Your task to perform on an android device: open a bookmark in the chrome app Image 0: 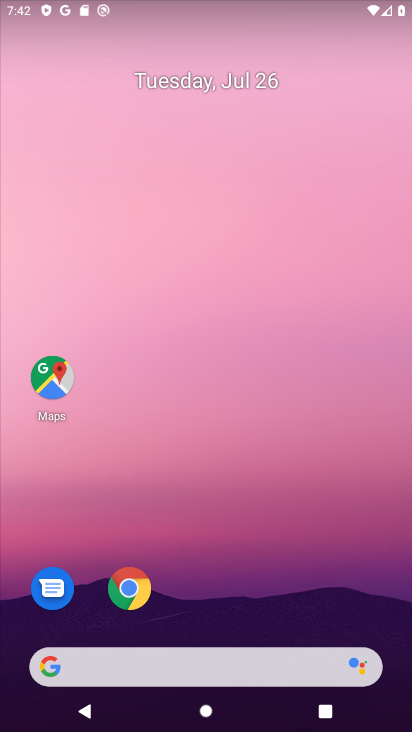
Step 0: drag from (194, 707) to (395, 287)
Your task to perform on an android device: open a bookmark in the chrome app Image 1: 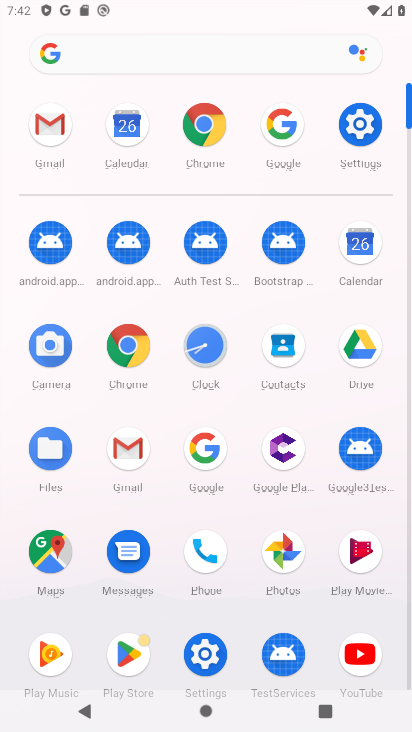
Step 1: click (205, 132)
Your task to perform on an android device: open a bookmark in the chrome app Image 2: 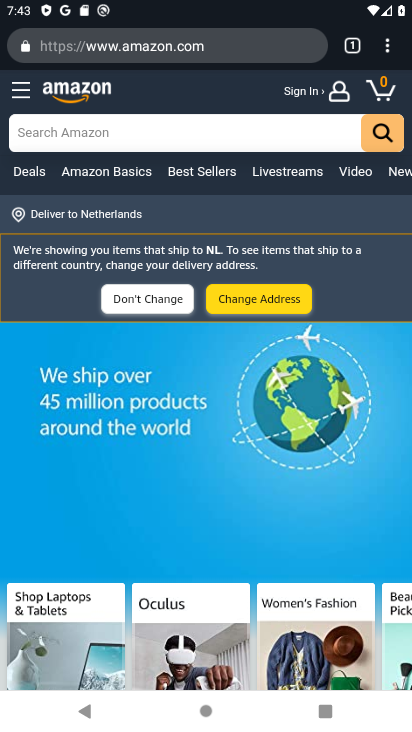
Step 2: click (387, 46)
Your task to perform on an android device: open a bookmark in the chrome app Image 3: 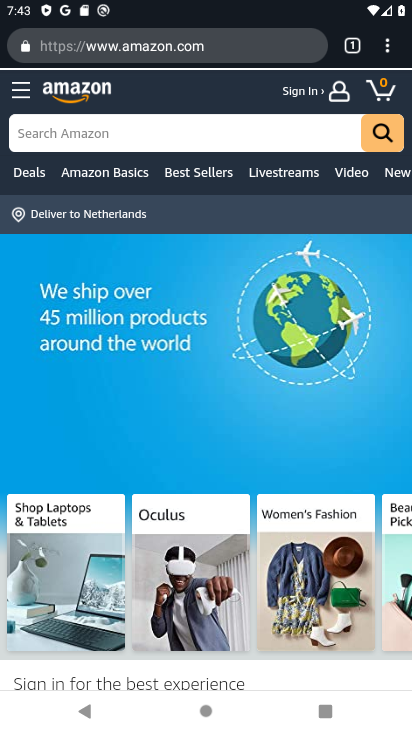
Step 3: click (389, 50)
Your task to perform on an android device: open a bookmark in the chrome app Image 4: 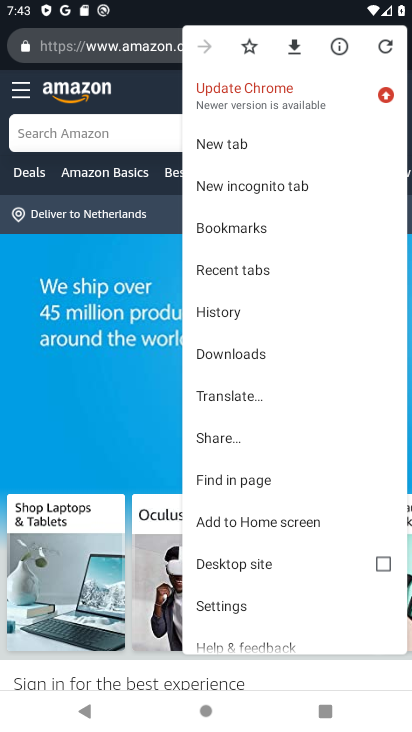
Step 4: click (213, 606)
Your task to perform on an android device: open a bookmark in the chrome app Image 5: 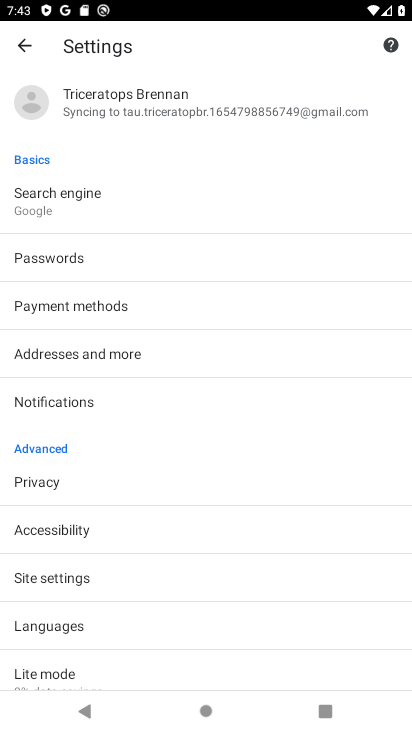
Step 5: click (23, 49)
Your task to perform on an android device: open a bookmark in the chrome app Image 6: 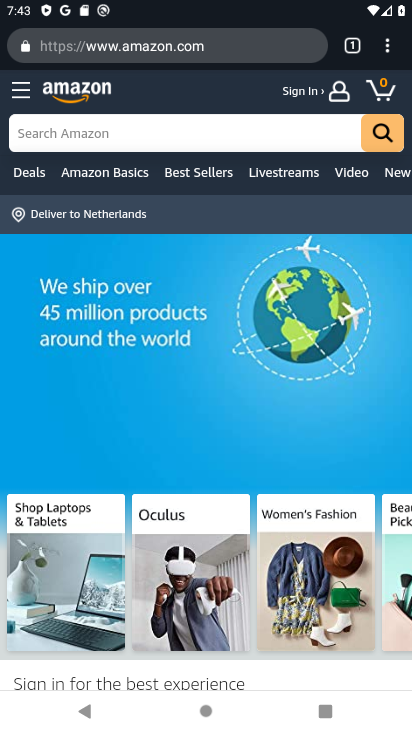
Step 6: click (395, 37)
Your task to perform on an android device: open a bookmark in the chrome app Image 7: 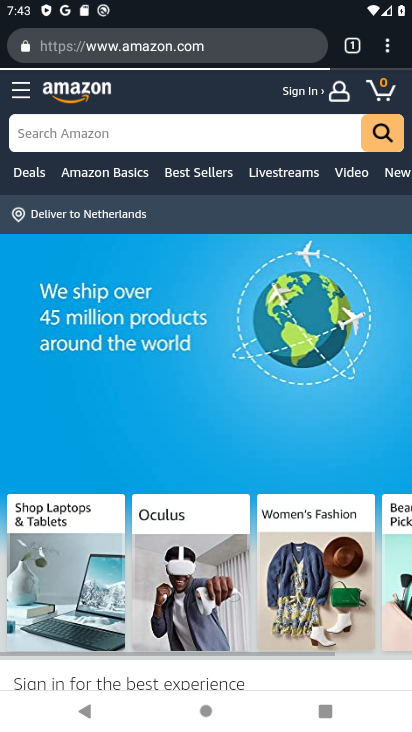
Step 7: click (389, 52)
Your task to perform on an android device: open a bookmark in the chrome app Image 8: 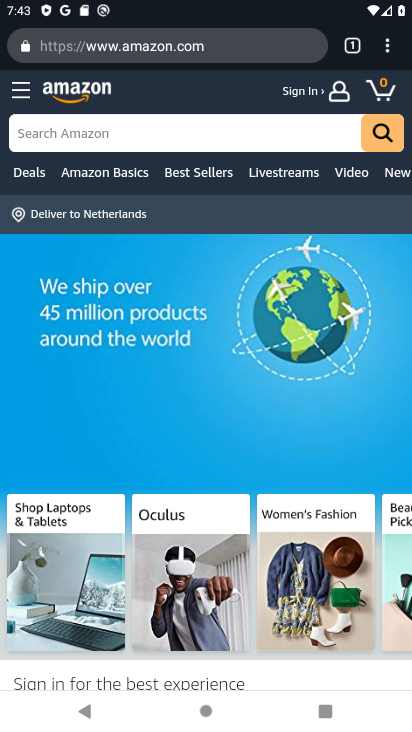
Step 8: click (389, 52)
Your task to perform on an android device: open a bookmark in the chrome app Image 9: 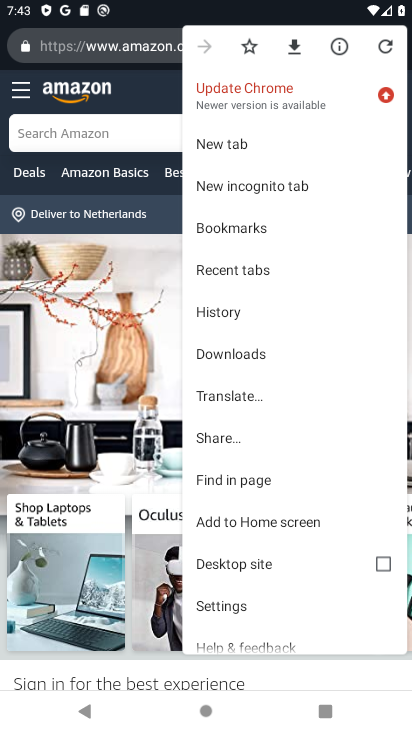
Step 9: click (235, 226)
Your task to perform on an android device: open a bookmark in the chrome app Image 10: 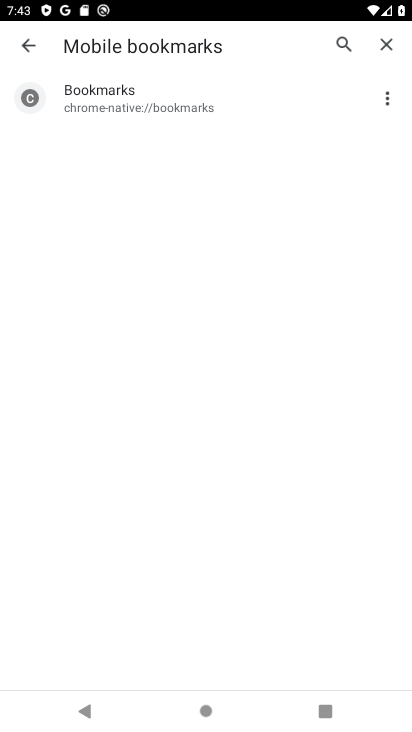
Step 10: click (212, 100)
Your task to perform on an android device: open a bookmark in the chrome app Image 11: 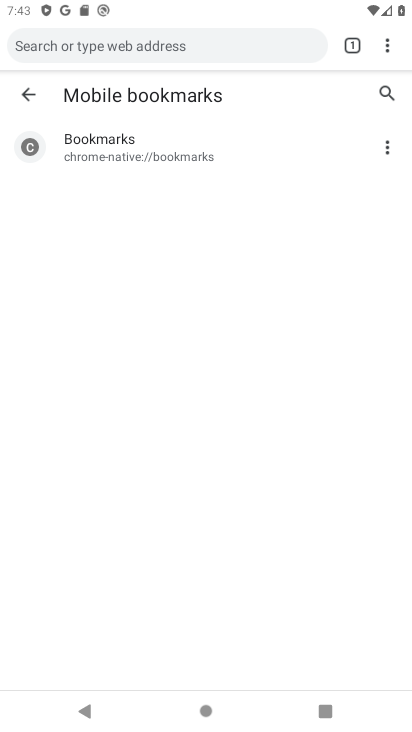
Step 11: click (191, 150)
Your task to perform on an android device: open a bookmark in the chrome app Image 12: 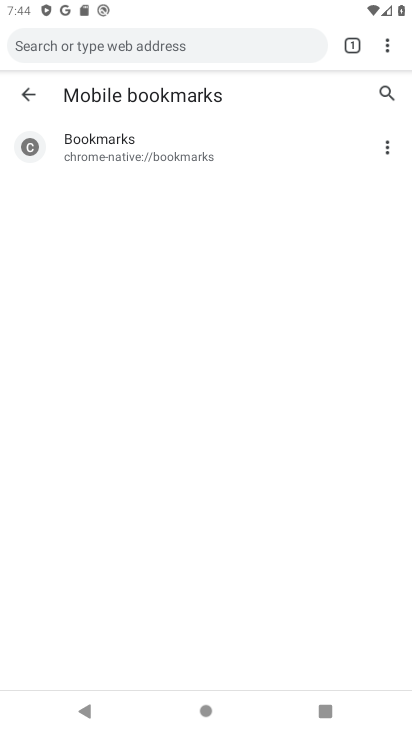
Step 12: click (139, 157)
Your task to perform on an android device: open a bookmark in the chrome app Image 13: 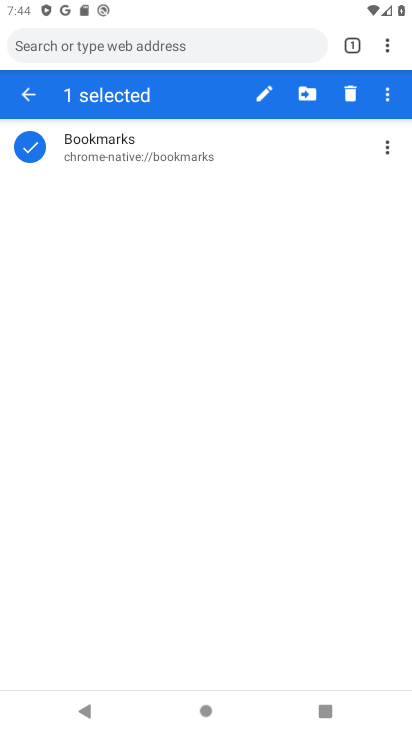
Step 13: task complete